Your task to perform on an android device: Open Google Chrome and open the bookmarks view Image 0: 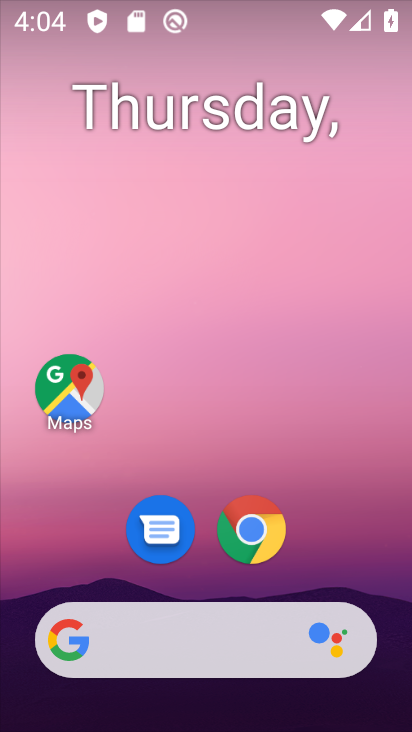
Step 0: click (250, 530)
Your task to perform on an android device: Open Google Chrome and open the bookmarks view Image 1: 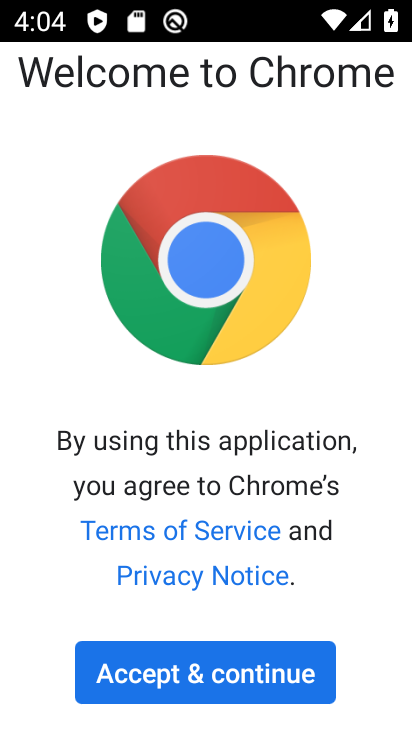
Step 1: click (221, 672)
Your task to perform on an android device: Open Google Chrome and open the bookmarks view Image 2: 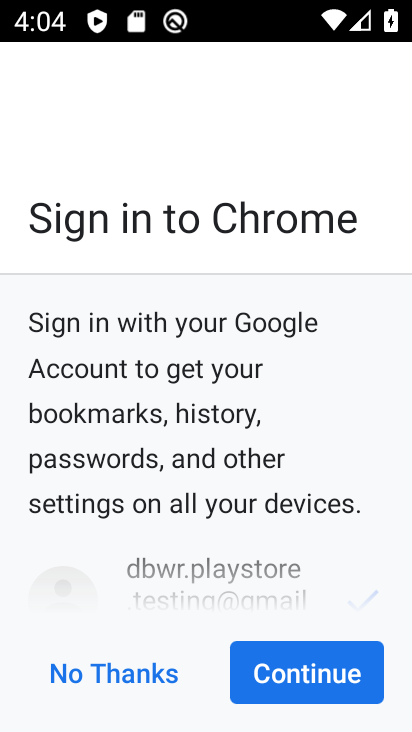
Step 2: click (322, 673)
Your task to perform on an android device: Open Google Chrome and open the bookmarks view Image 3: 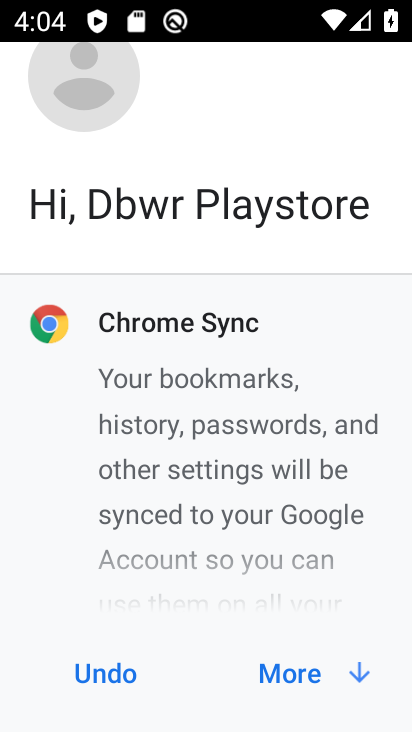
Step 3: click (289, 675)
Your task to perform on an android device: Open Google Chrome and open the bookmarks view Image 4: 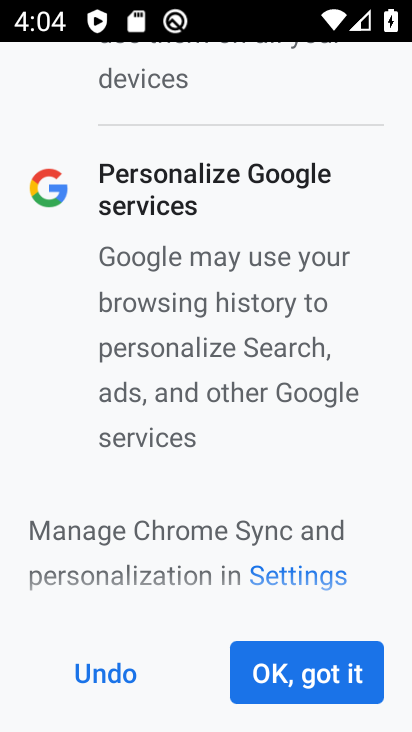
Step 4: click (277, 662)
Your task to perform on an android device: Open Google Chrome and open the bookmarks view Image 5: 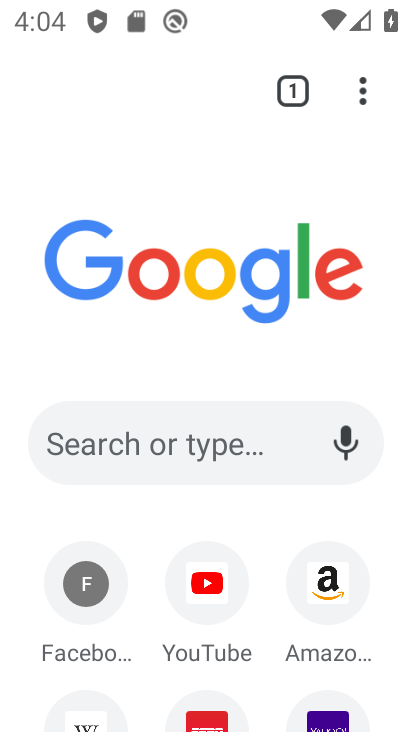
Step 5: click (361, 102)
Your task to perform on an android device: Open Google Chrome and open the bookmarks view Image 6: 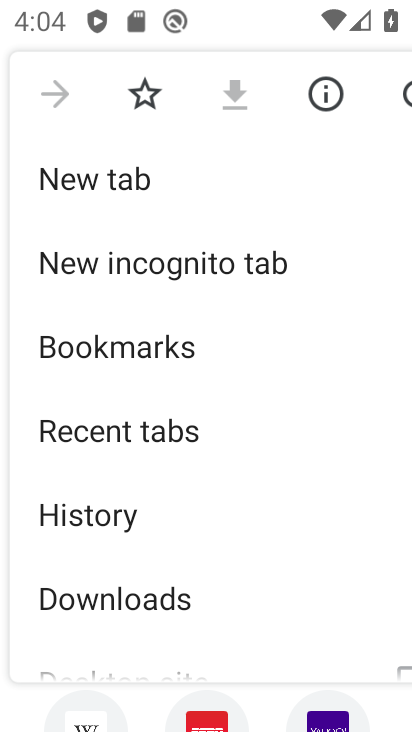
Step 6: click (142, 349)
Your task to perform on an android device: Open Google Chrome and open the bookmarks view Image 7: 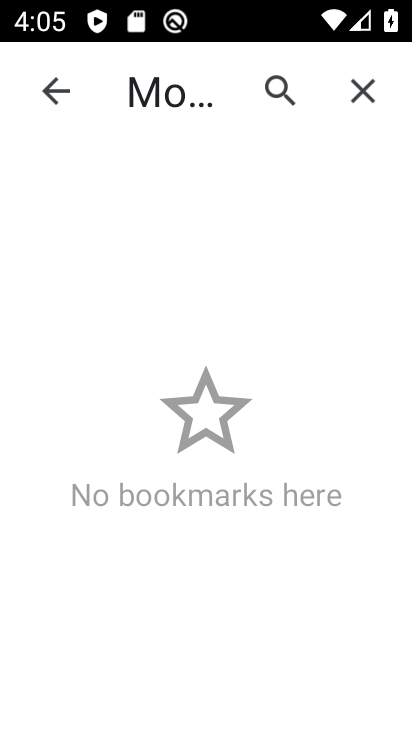
Step 7: task complete